Your task to perform on an android device: What's on my calendar today? Image 0: 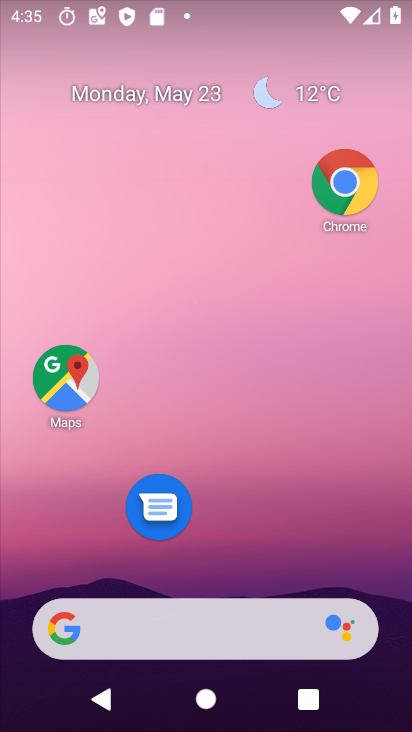
Step 0: click (158, 95)
Your task to perform on an android device: What's on my calendar today? Image 1: 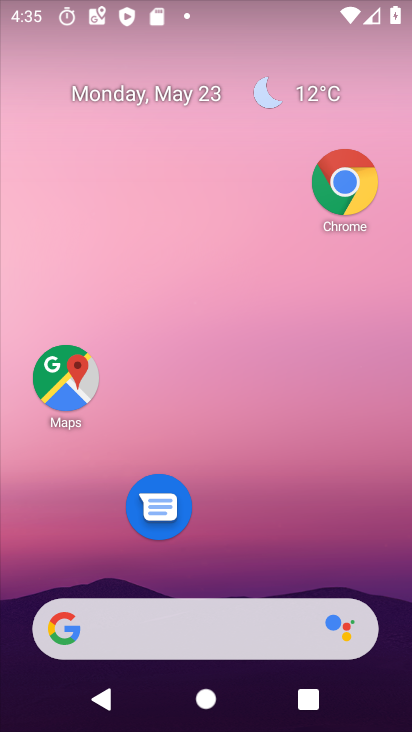
Step 1: click (146, 95)
Your task to perform on an android device: What's on my calendar today? Image 2: 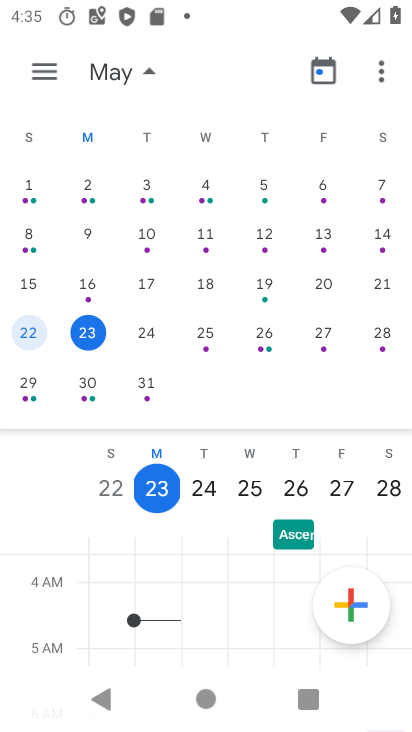
Step 2: task complete